Your task to perform on an android device: Go to wifi settings Image 0: 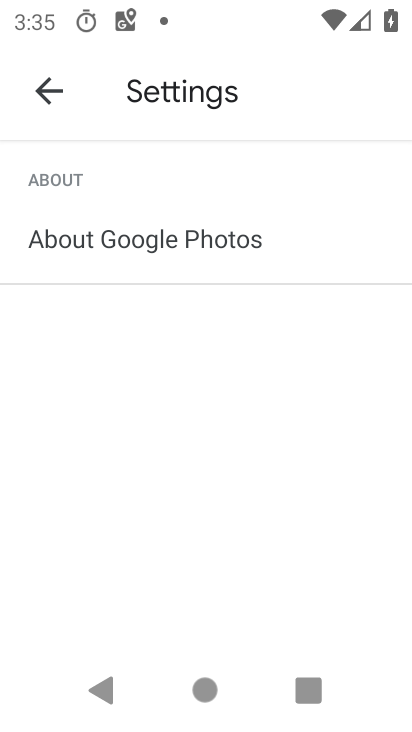
Step 0: press home button
Your task to perform on an android device: Go to wifi settings Image 1: 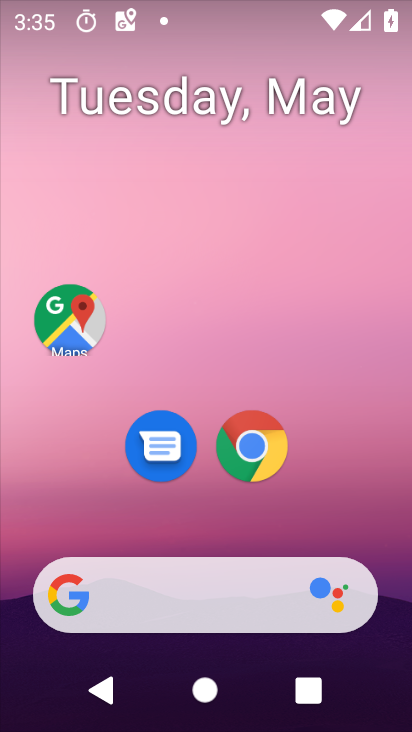
Step 1: drag from (220, 727) to (214, 186)
Your task to perform on an android device: Go to wifi settings Image 2: 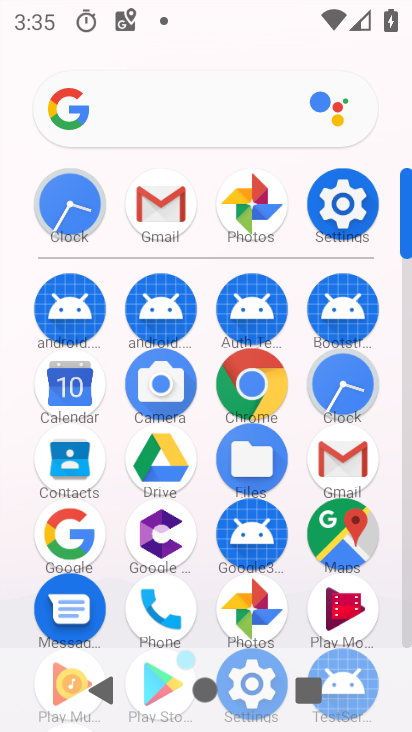
Step 2: click (348, 210)
Your task to perform on an android device: Go to wifi settings Image 3: 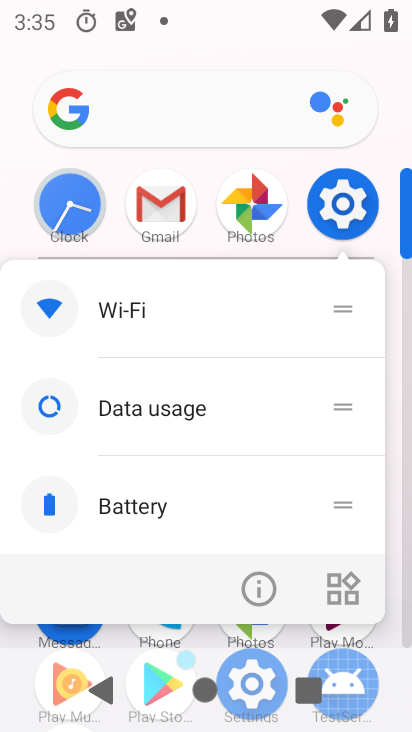
Step 3: click (349, 211)
Your task to perform on an android device: Go to wifi settings Image 4: 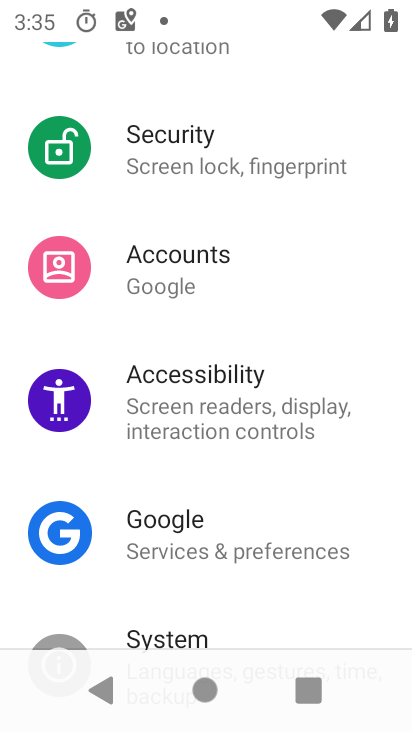
Step 4: drag from (332, 128) to (338, 473)
Your task to perform on an android device: Go to wifi settings Image 5: 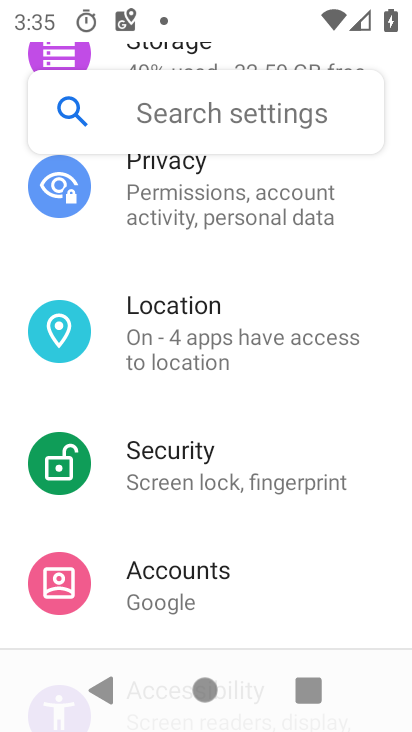
Step 5: drag from (333, 179) to (323, 588)
Your task to perform on an android device: Go to wifi settings Image 6: 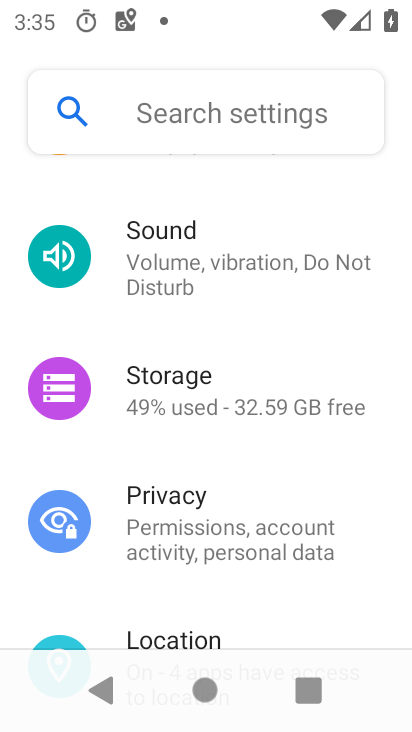
Step 6: drag from (274, 215) to (289, 539)
Your task to perform on an android device: Go to wifi settings Image 7: 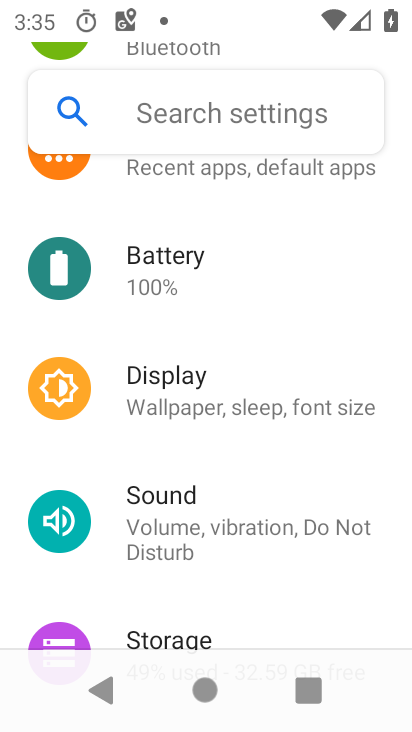
Step 7: drag from (228, 247) to (236, 547)
Your task to perform on an android device: Go to wifi settings Image 8: 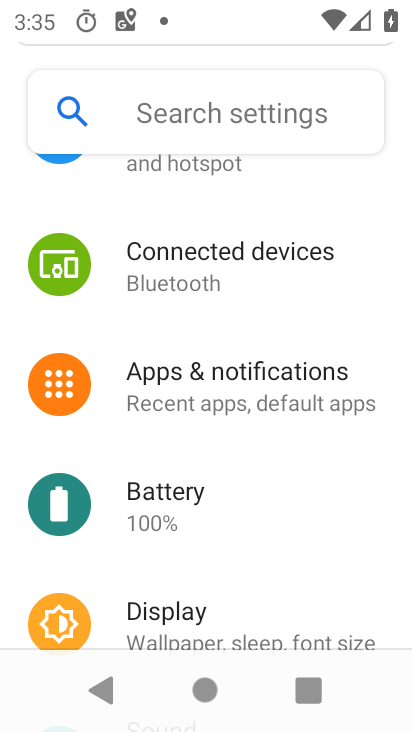
Step 8: drag from (225, 204) to (219, 577)
Your task to perform on an android device: Go to wifi settings Image 9: 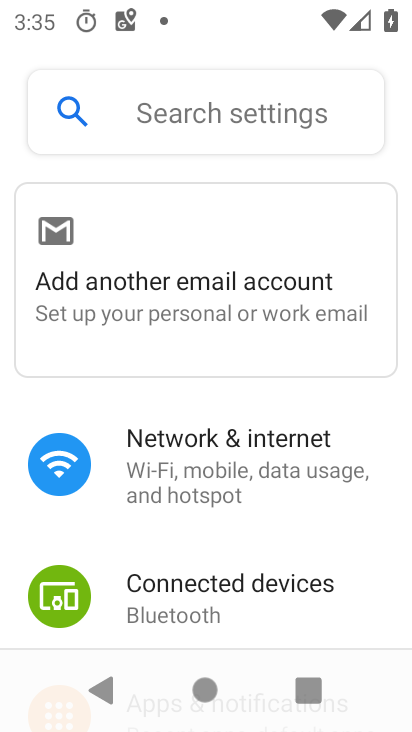
Step 9: click (159, 466)
Your task to perform on an android device: Go to wifi settings Image 10: 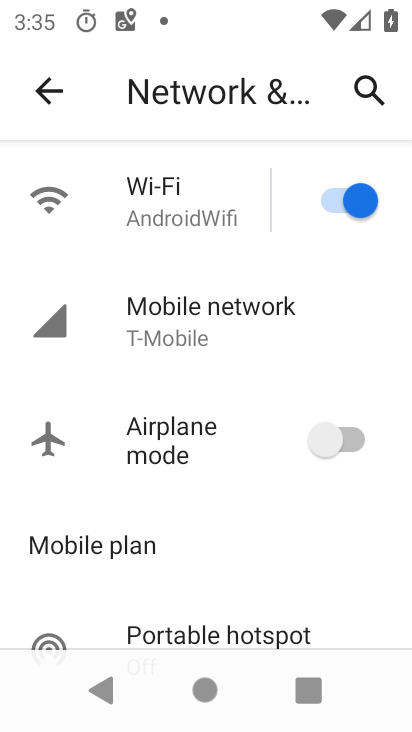
Step 10: click (159, 204)
Your task to perform on an android device: Go to wifi settings Image 11: 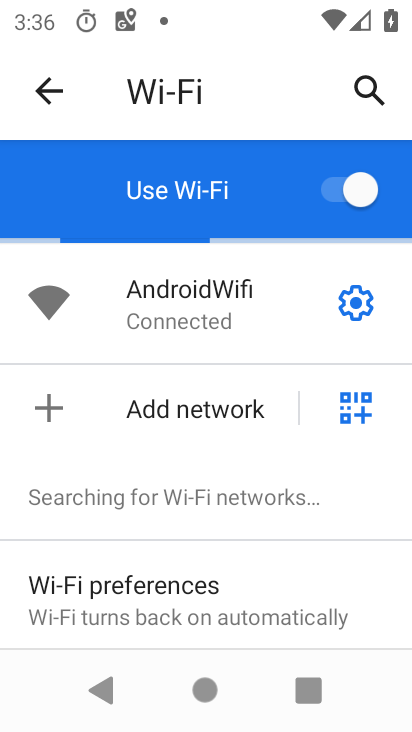
Step 11: task complete